Your task to perform on an android device: Open Google Maps and go to "Timeline" Image 0: 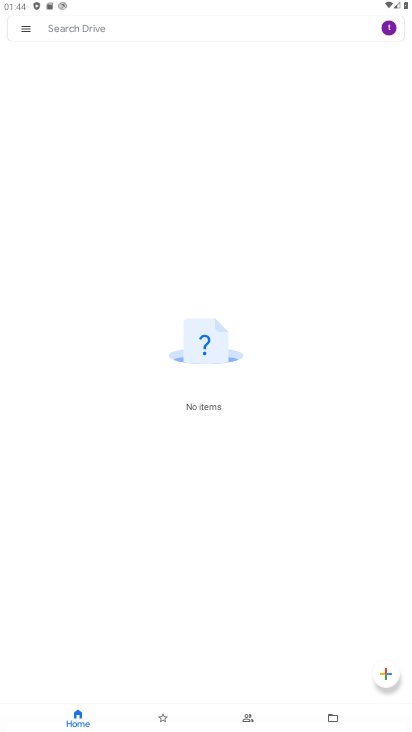
Step 0: press home button
Your task to perform on an android device: Open Google Maps and go to "Timeline" Image 1: 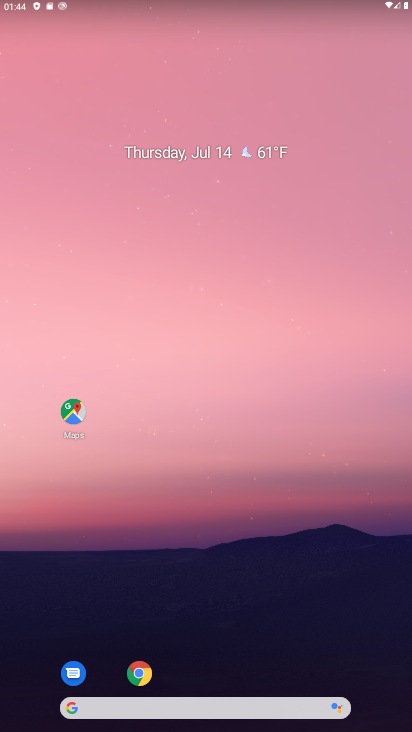
Step 1: click (74, 411)
Your task to perform on an android device: Open Google Maps and go to "Timeline" Image 2: 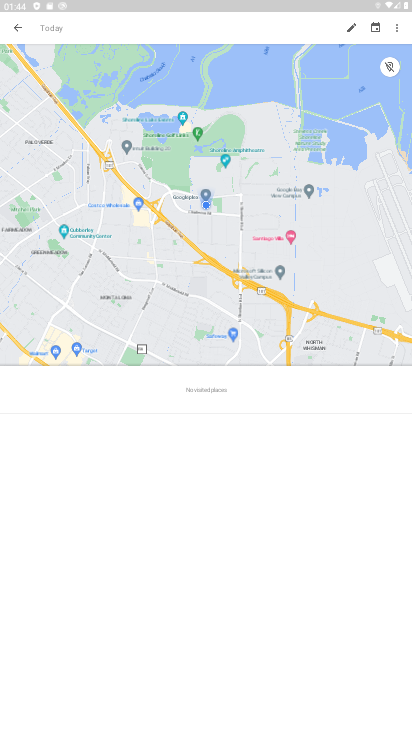
Step 2: click (22, 25)
Your task to perform on an android device: Open Google Maps and go to "Timeline" Image 3: 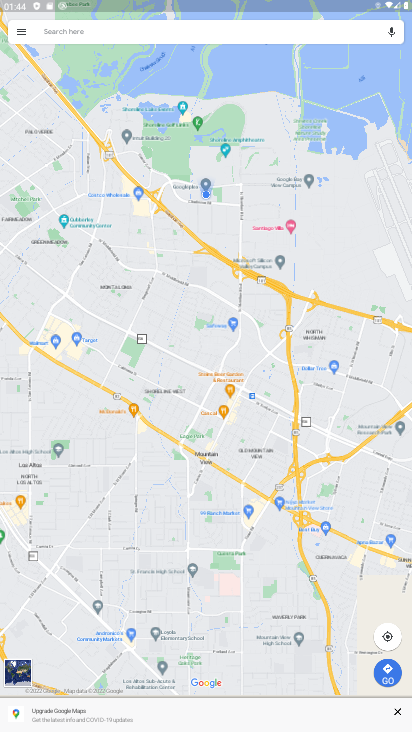
Step 3: click (22, 25)
Your task to perform on an android device: Open Google Maps and go to "Timeline" Image 4: 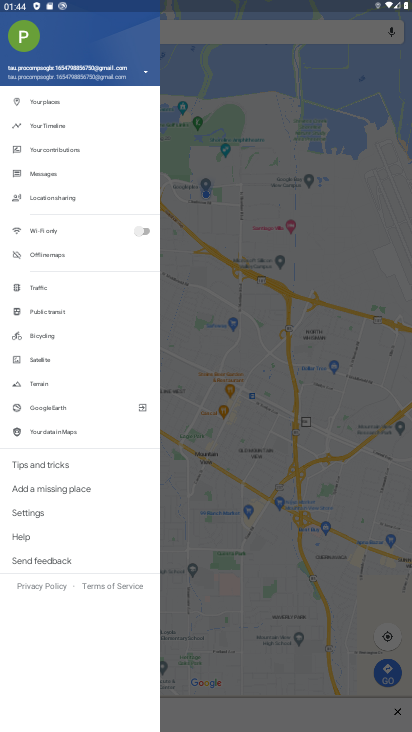
Step 4: click (76, 126)
Your task to perform on an android device: Open Google Maps and go to "Timeline" Image 5: 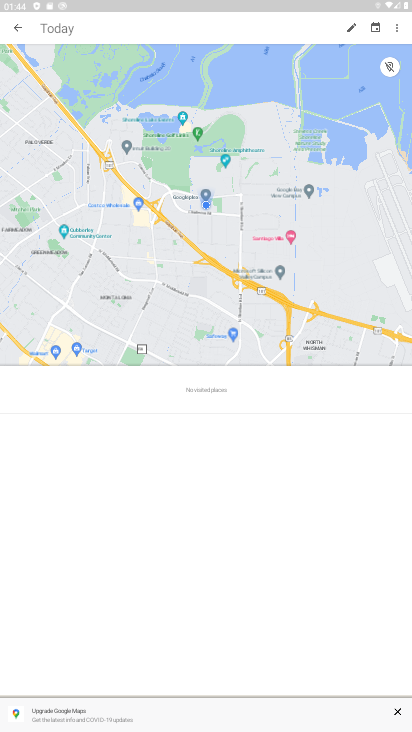
Step 5: task complete